Your task to perform on an android device: Open my contact list Image 0: 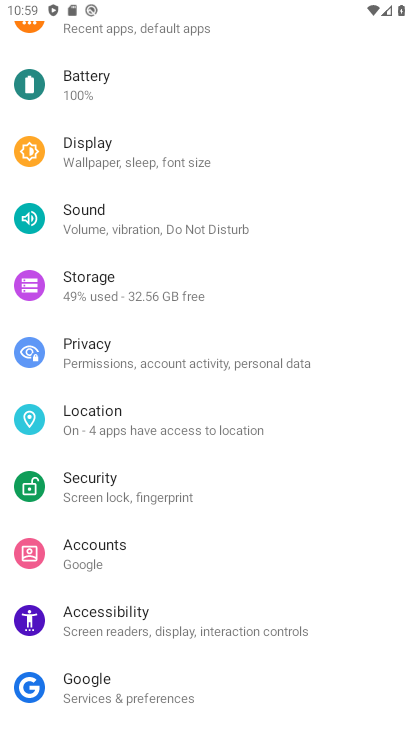
Step 0: press home button
Your task to perform on an android device: Open my contact list Image 1: 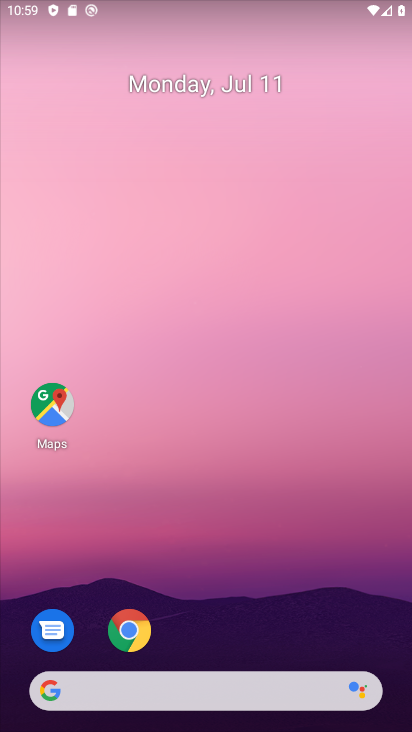
Step 1: drag from (254, 594) to (223, 29)
Your task to perform on an android device: Open my contact list Image 2: 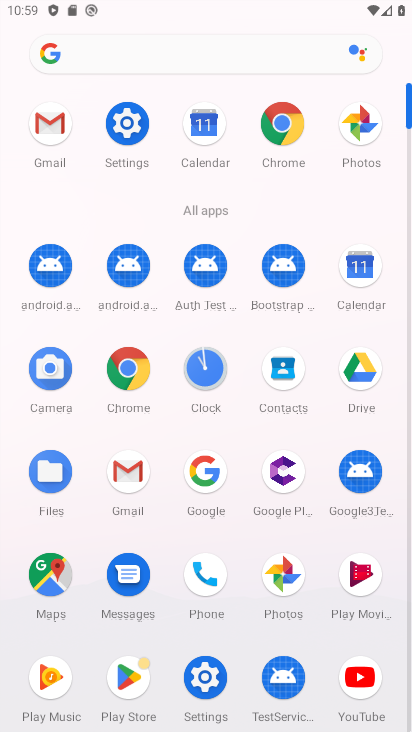
Step 2: click (289, 385)
Your task to perform on an android device: Open my contact list Image 3: 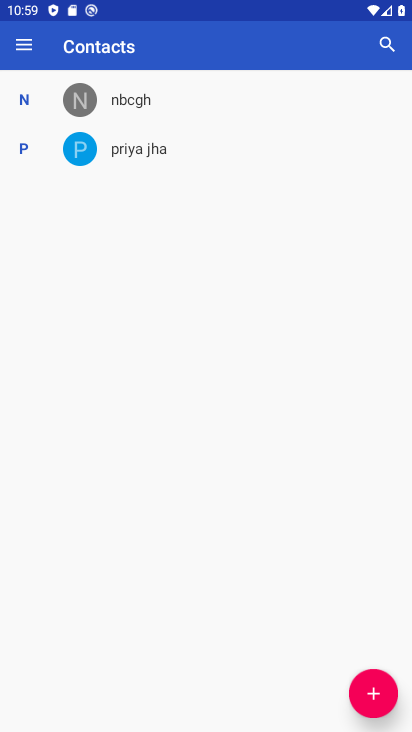
Step 3: task complete